Your task to perform on an android device: Go to Maps Image 0: 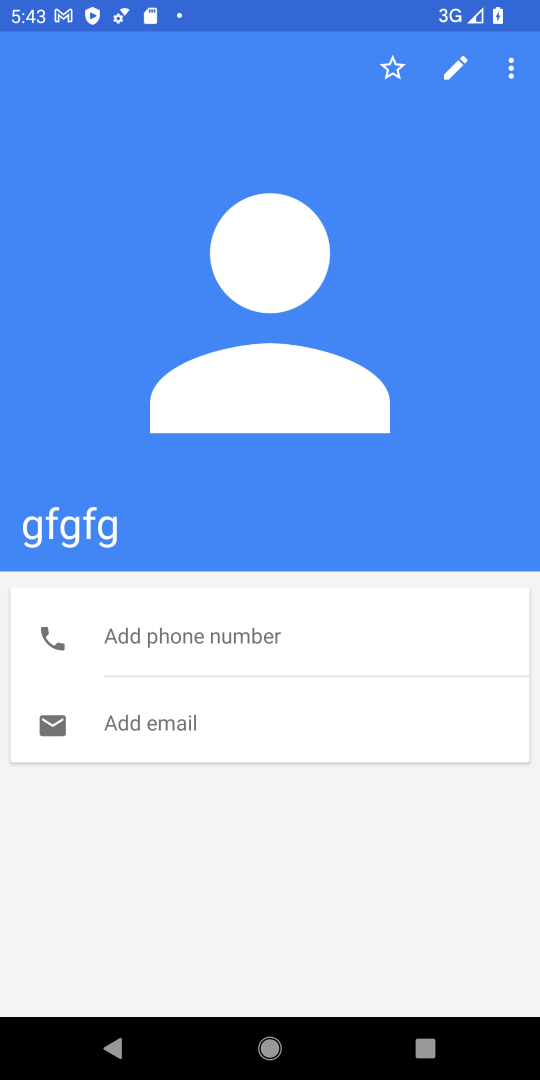
Step 0: press home button
Your task to perform on an android device: Go to Maps Image 1: 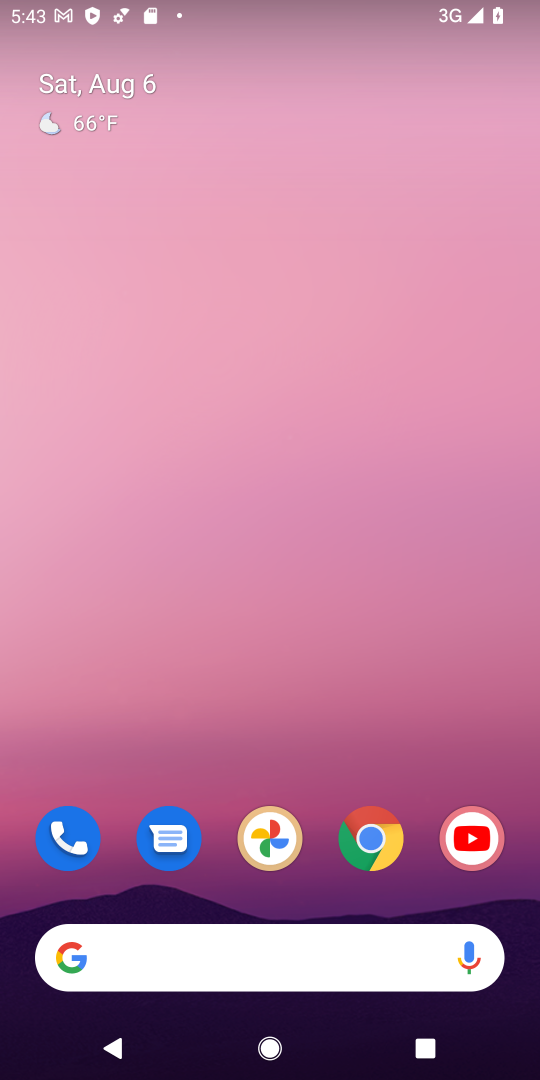
Step 1: drag from (304, 728) to (367, 19)
Your task to perform on an android device: Go to Maps Image 2: 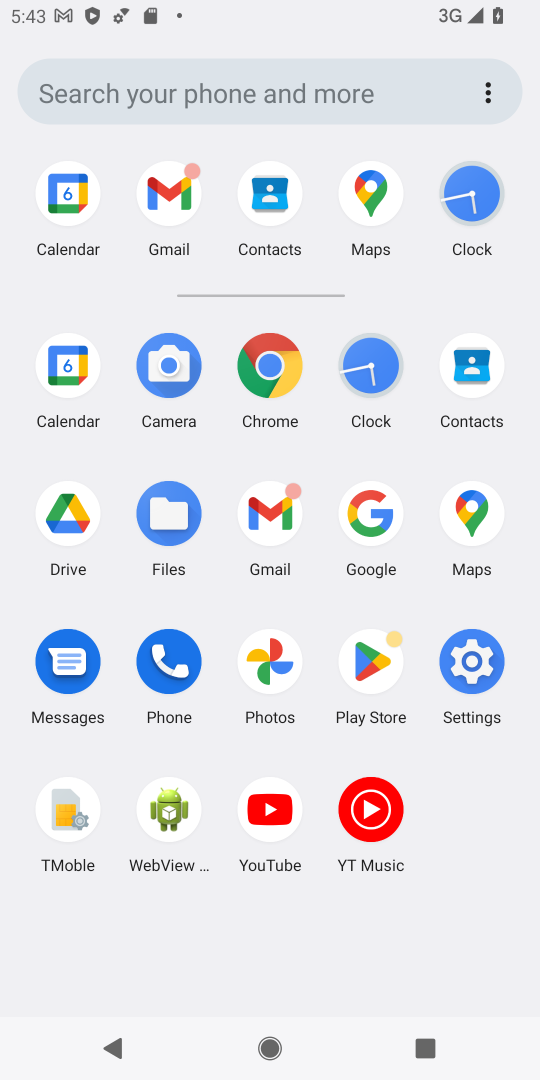
Step 2: click (301, 1039)
Your task to perform on an android device: Go to Maps Image 3: 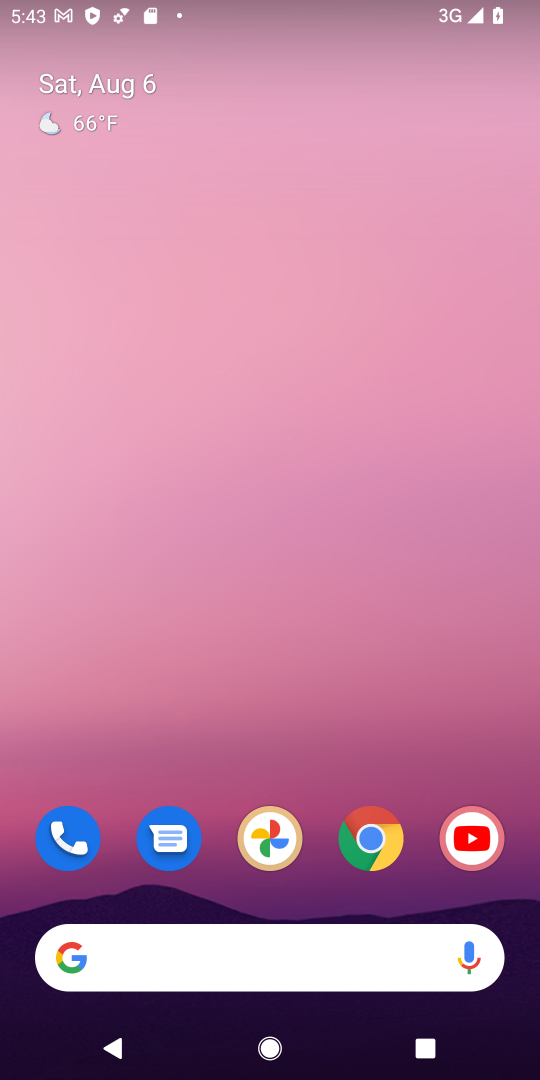
Step 3: drag from (308, 668) to (320, 0)
Your task to perform on an android device: Go to Maps Image 4: 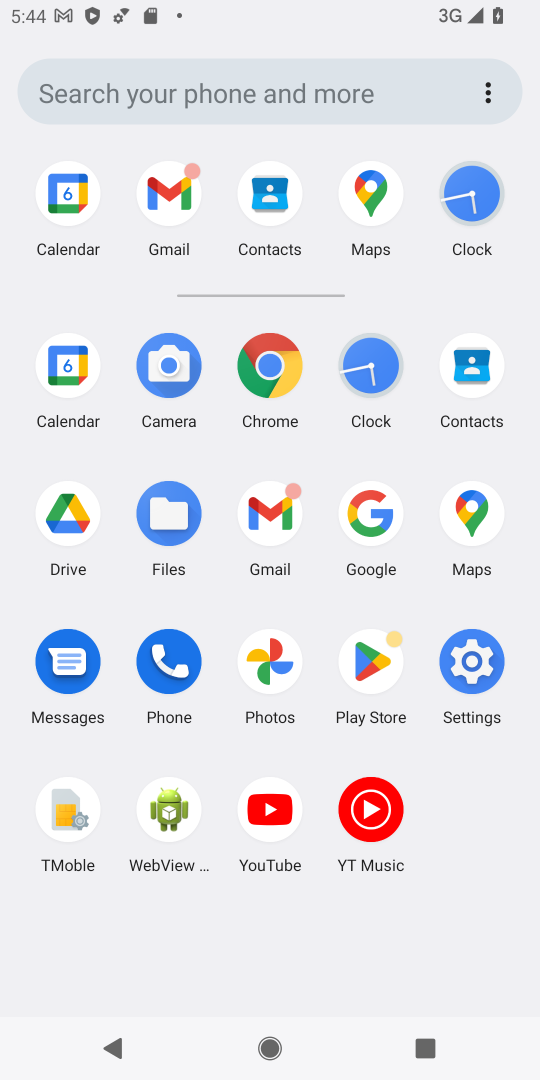
Step 4: click (474, 523)
Your task to perform on an android device: Go to Maps Image 5: 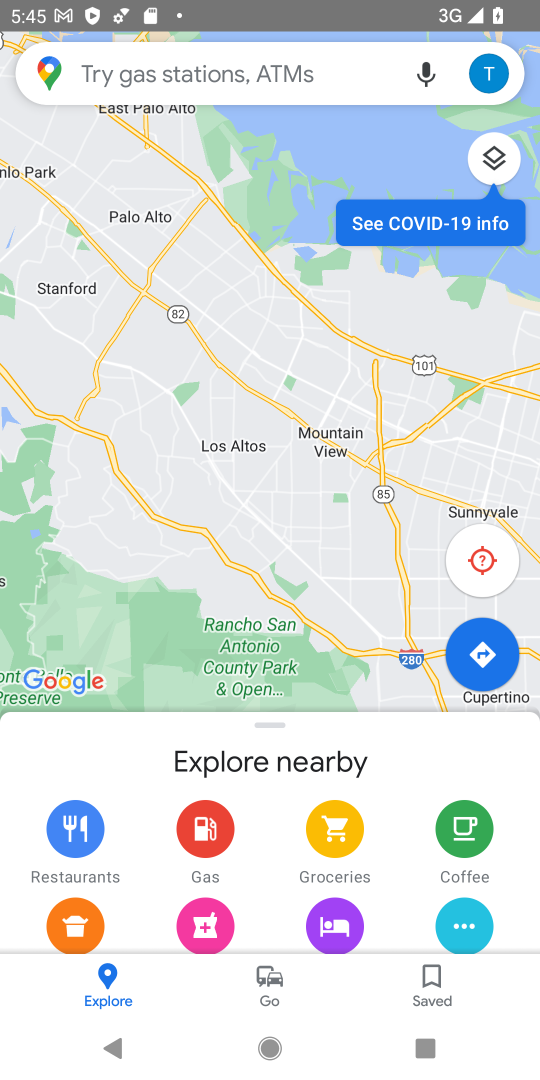
Step 5: task complete